Your task to perform on an android device: Open Amazon Image 0: 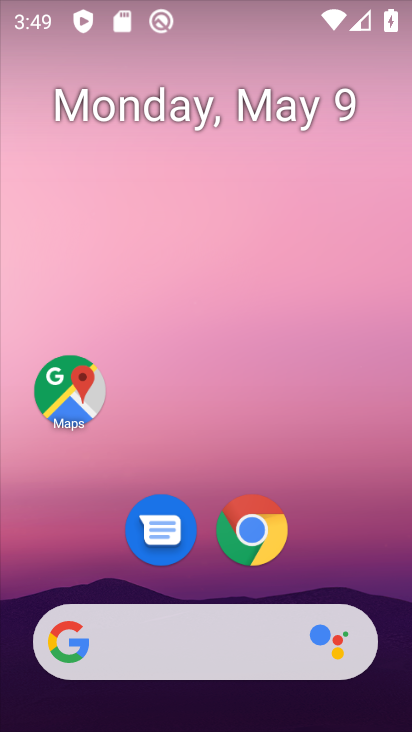
Step 0: press home button
Your task to perform on an android device: Open Amazon Image 1: 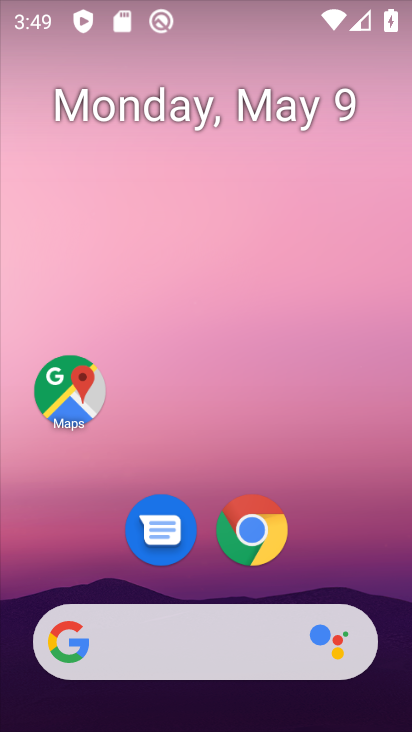
Step 1: click (257, 521)
Your task to perform on an android device: Open Amazon Image 2: 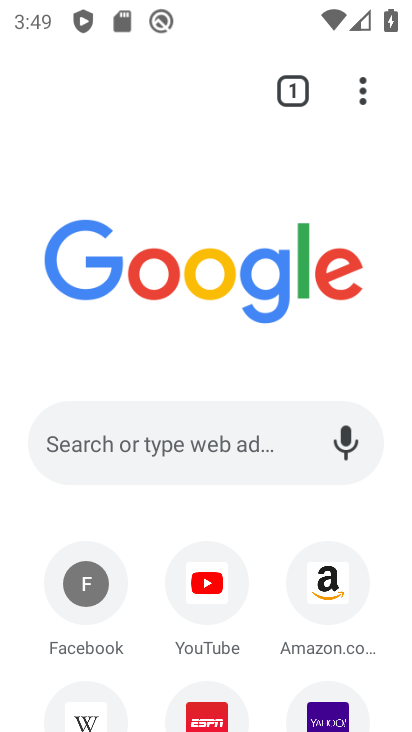
Step 2: click (321, 574)
Your task to perform on an android device: Open Amazon Image 3: 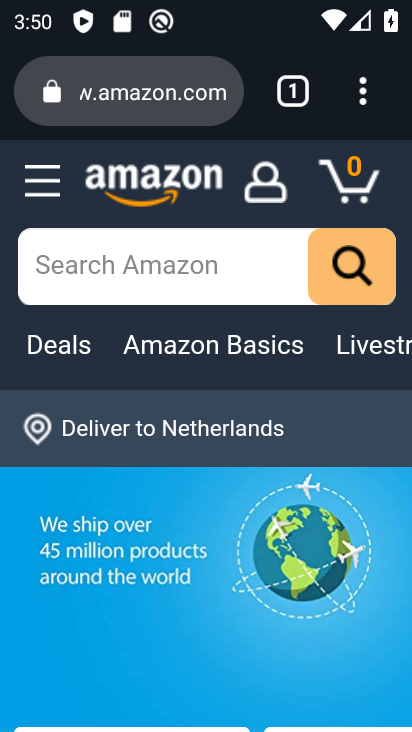
Step 3: task complete